Your task to perform on an android device: delete the emails in spam in the gmail app Image 0: 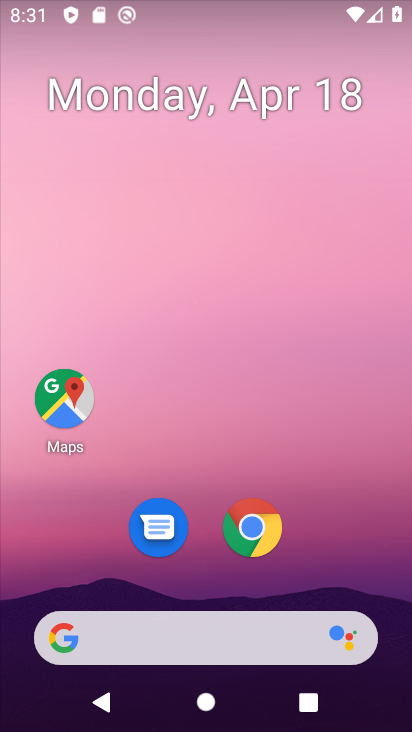
Step 0: drag from (196, 520) to (227, 24)
Your task to perform on an android device: delete the emails in spam in the gmail app Image 1: 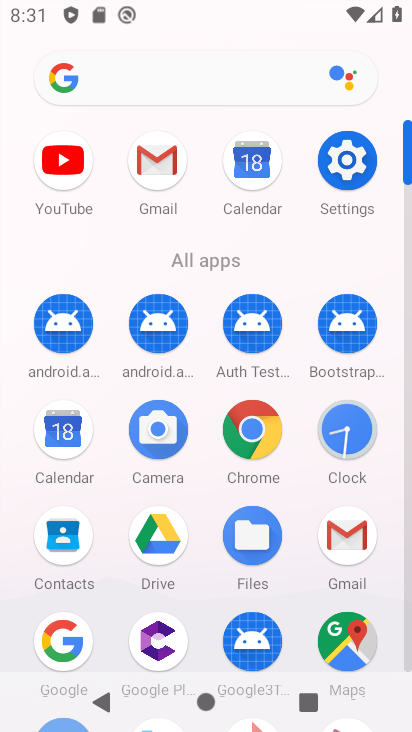
Step 1: click (355, 553)
Your task to perform on an android device: delete the emails in spam in the gmail app Image 2: 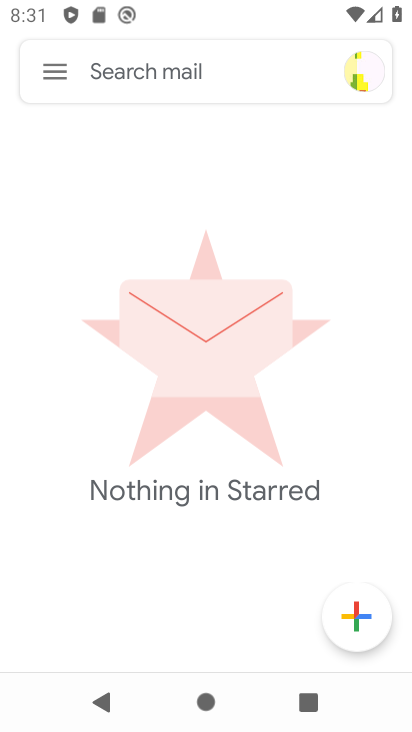
Step 2: click (47, 66)
Your task to perform on an android device: delete the emails in spam in the gmail app Image 3: 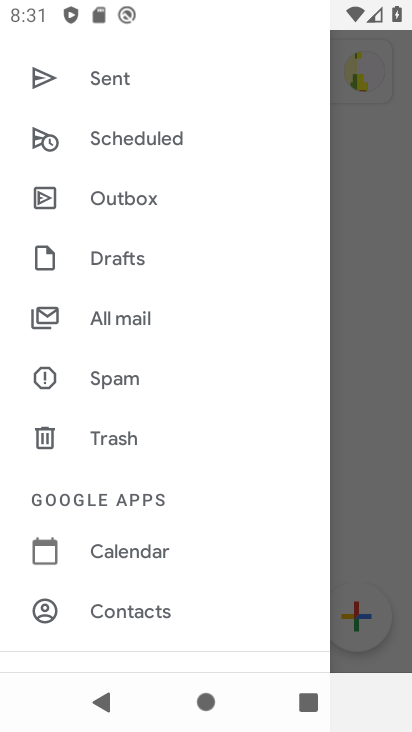
Step 3: click (132, 376)
Your task to perform on an android device: delete the emails in spam in the gmail app Image 4: 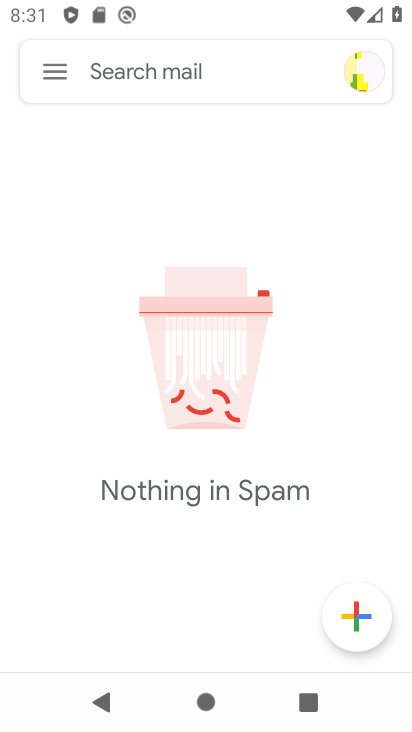
Step 4: task complete